Your task to perform on an android device: Go to Amazon Image 0: 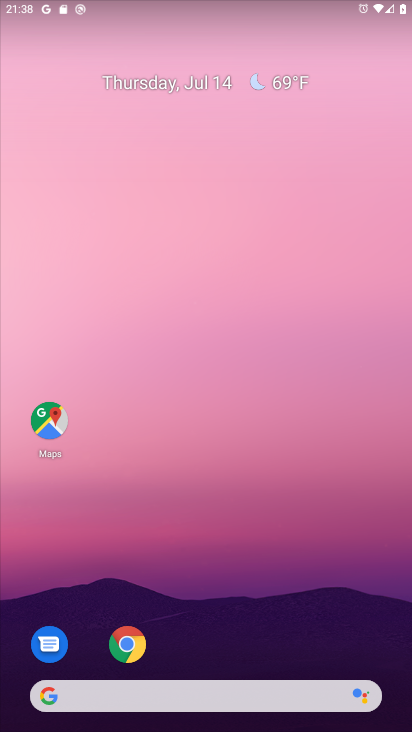
Step 0: click (316, 703)
Your task to perform on an android device: Go to Amazon Image 1: 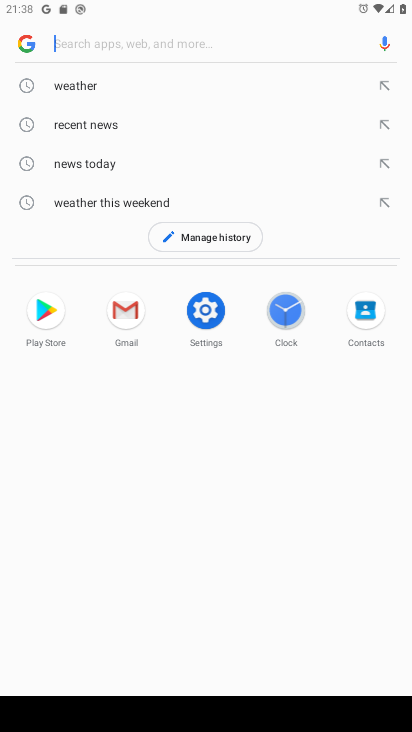
Step 1: type "amazon"
Your task to perform on an android device: Go to Amazon Image 2: 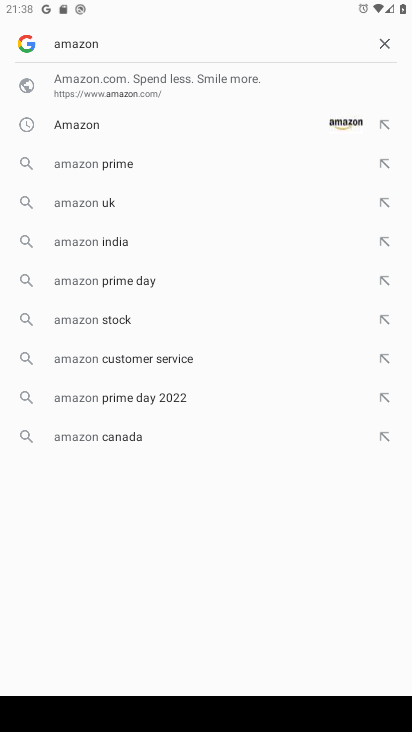
Step 2: click (111, 135)
Your task to perform on an android device: Go to Amazon Image 3: 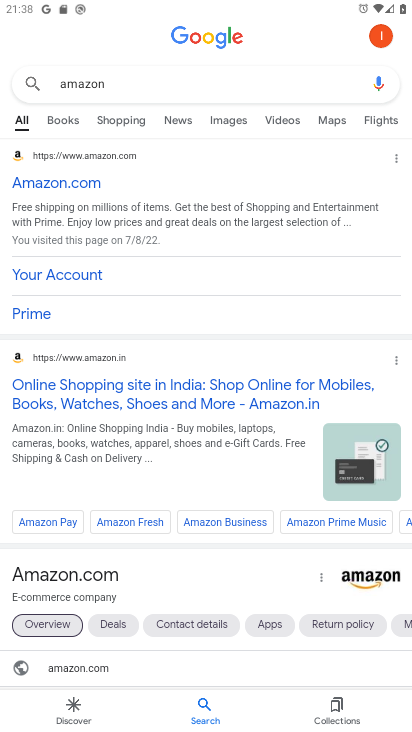
Step 3: click (72, 197)
Your task to perform on an android device: Go to Amazon Image 4: 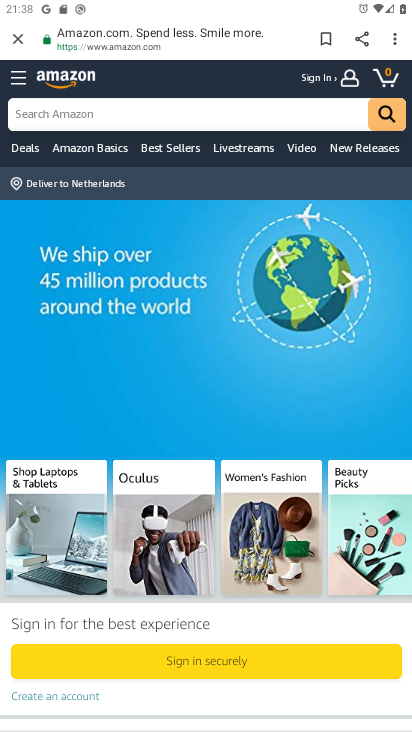
Step 4: task complete